Your task to perform on an android device: turn on priority inbox in the gmail app Image 0: 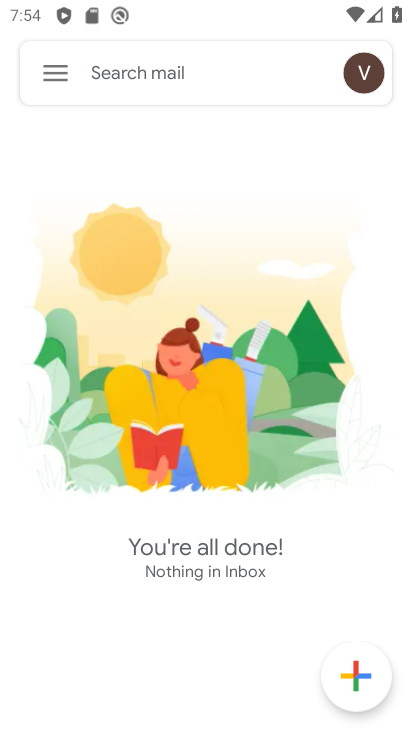
Step 0: click (59, 67)
Your task to perform on an android device: turn on priority inbox in the gmail app Image 1: 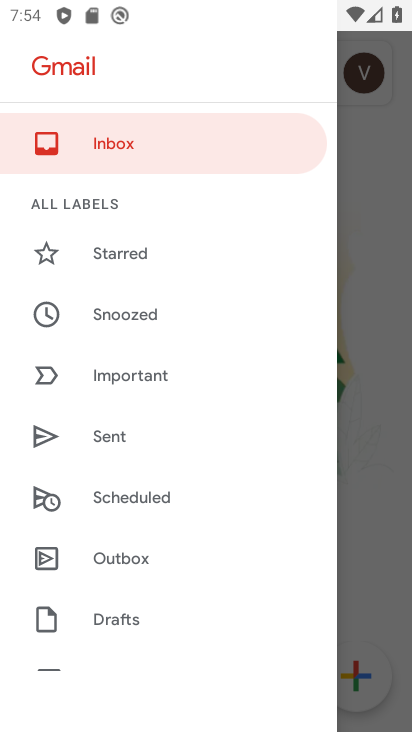
Step 1: drag from (215, 457) to (330, 118)
Your task to perform on an android device: turn on priority inbox in the gmail app Image 2: 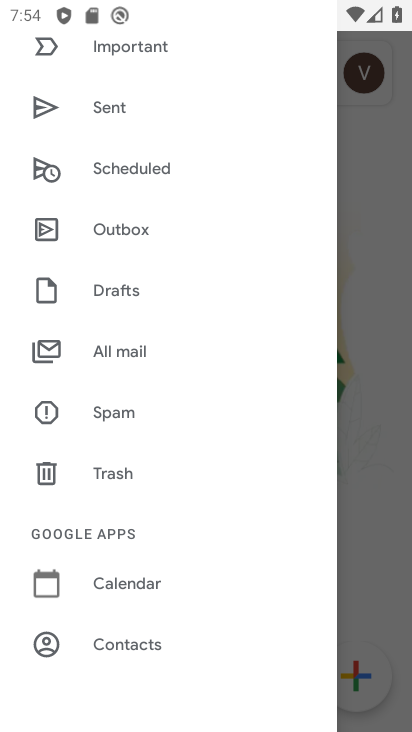
Step 2: drag from (216, 408) to (278, 128)
Your task to perform on an android device: turn on priority inbox in the gmail app Image 3: 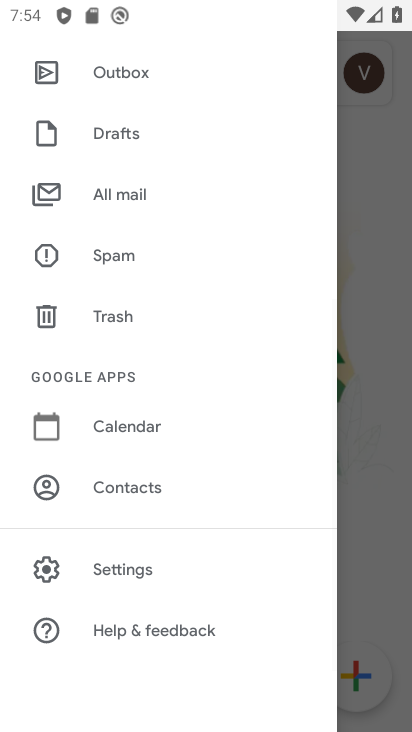
Step 3: click (145, 570)
Your task to perform on an android device: turn on priority inbox in the gmail app Image 4: 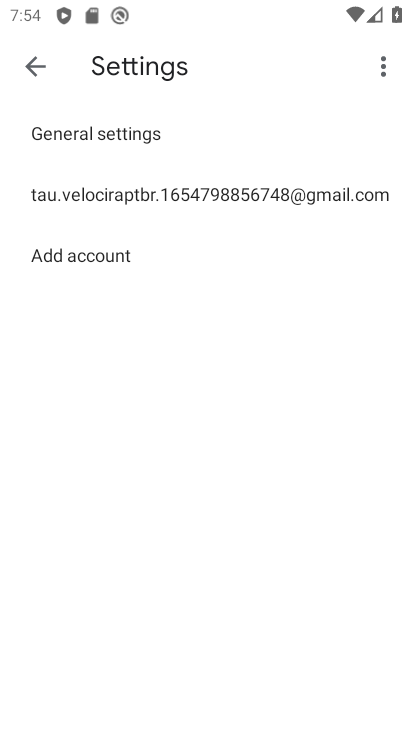
Step 4: click (231, 185)
Your task to perform on an android device: turn on priority inbox in the gmail app Image 5: 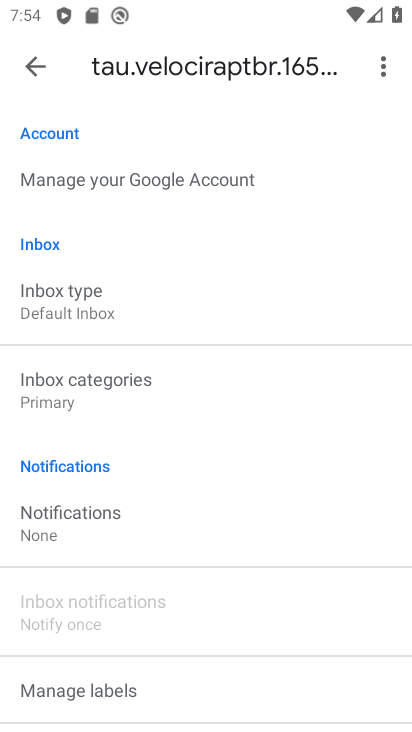
Step 5: drag from (175, 587) to (265, 310)
Your task to perform on an android device: turn on priority inbox in the gmail app Image 6: 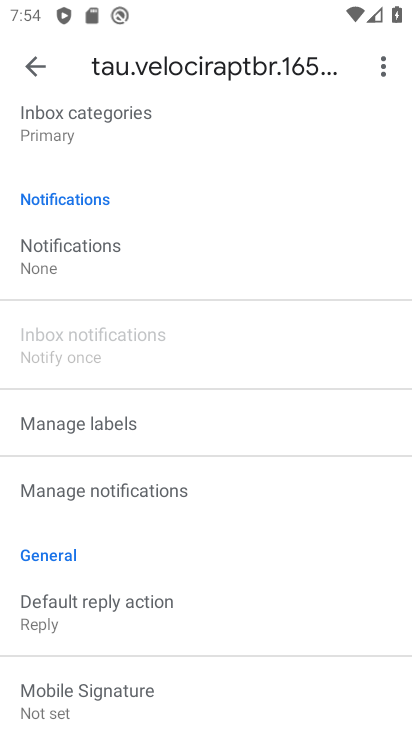
Step 6: drag from (304, 187) to (248, 542)
Your task to perform on an android device: turn on priority inbox in the gmail app Image 7: 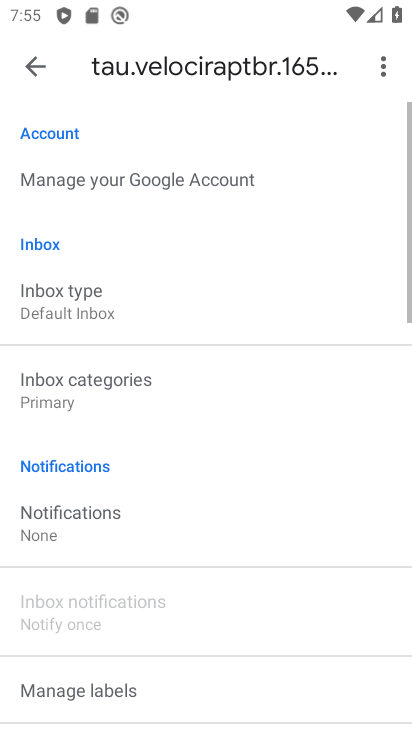
Step 7: click (70, 293)
Your task to perform on an android device: turn on priority inbox in the gmail app Image 8: 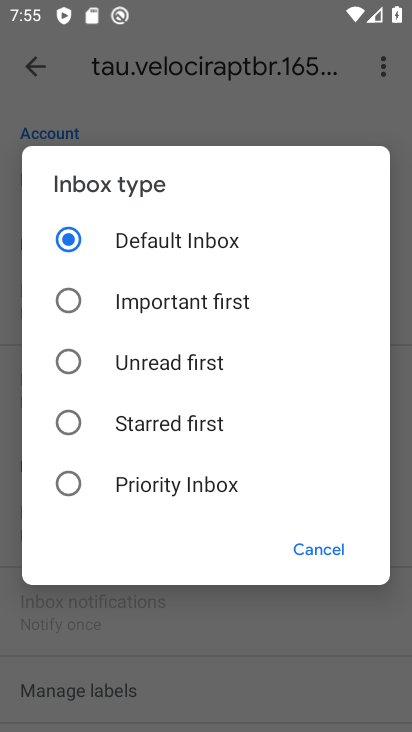
Step 8: click (70, 491)
Your task to perform on an android device: turn on priority inbox in the gmail app Image 9: 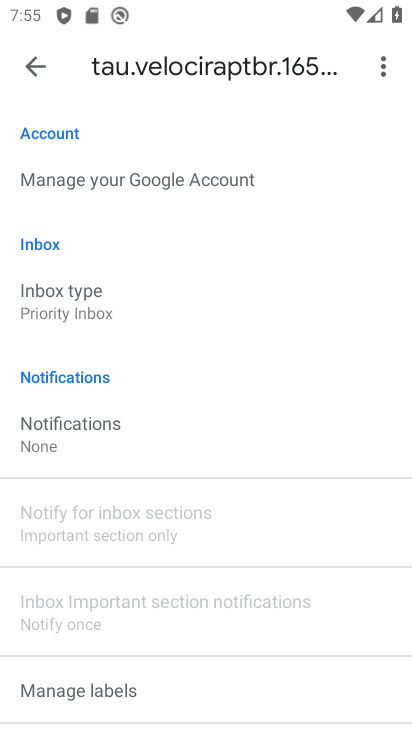
Step 9: task complete